Your task to perform on an android device: Check the news Image 0: 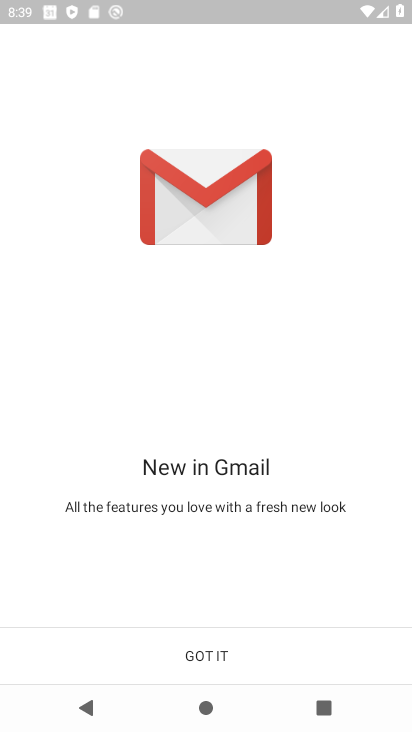
Step 0: press home button
Your task to perform on an android device: Check the news Image 1: 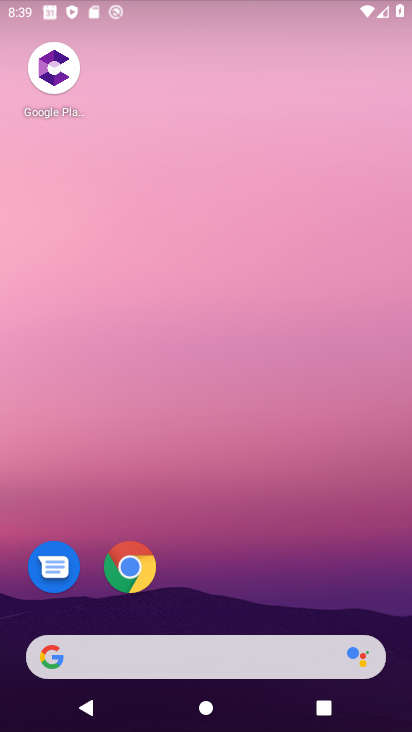
Step 1: drag from (310, 523) to (286, 32)
Your task to perform on an android device: Check the news Image 2: 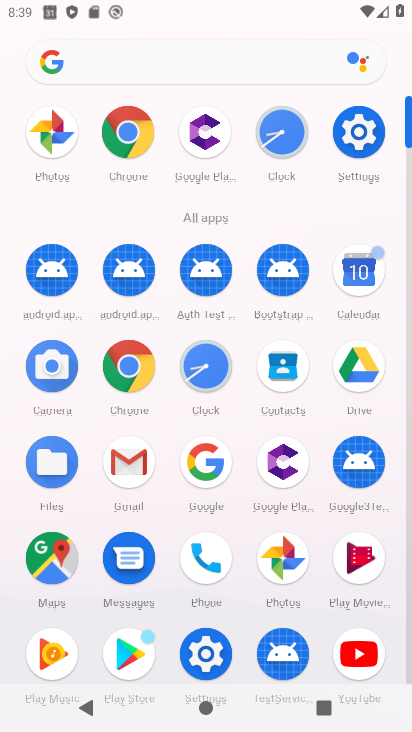
Step 2: click (129, 140)
Your task to perform on an android device: Check the news Image 3: 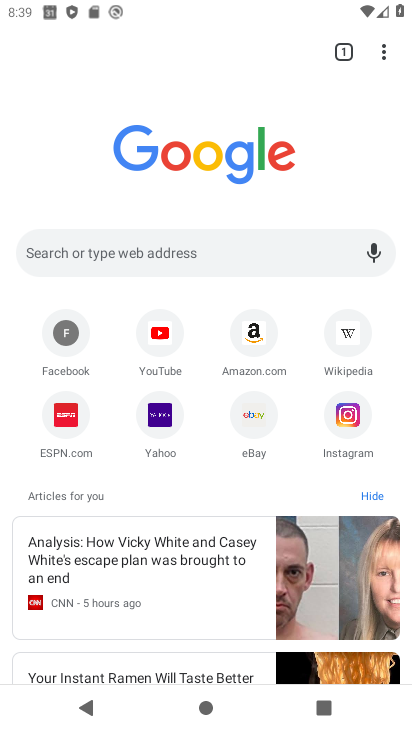
Step 3: task complete